Your task to perform on an android device: add a label to a message in the gmail app Image 0: 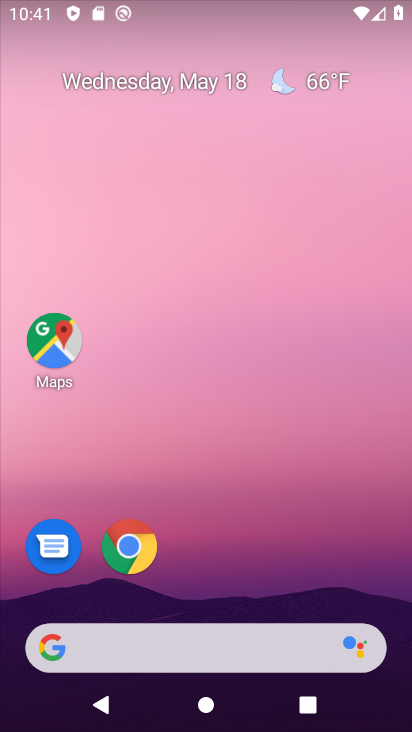
Step 0: drag from (247, 724) to (245, 203)
Your task to perform on an android device: add a label to a message in the gmail app Image 1: 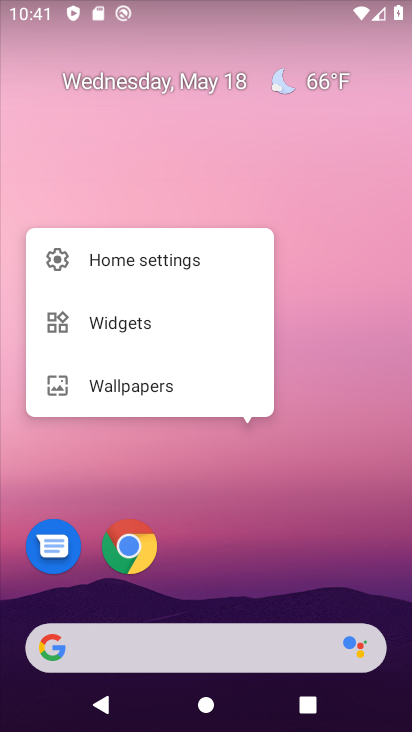
Step 1: click (201, 462)
Your task to perform on an android device: add a label to a message in the gmail app Image 2: 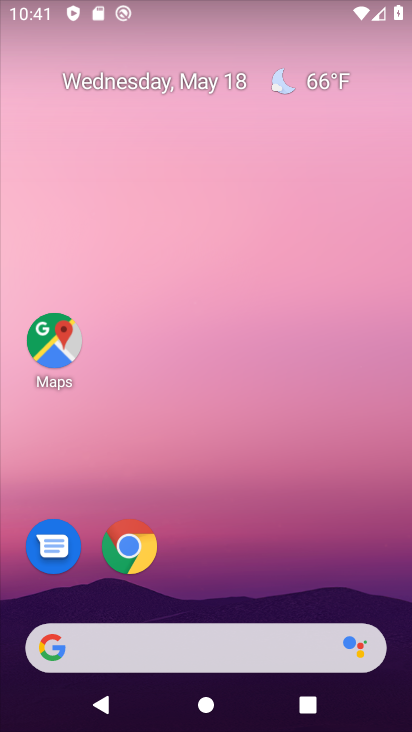
Step 2: drag from (226, 720) to (281, 99)
Your task to perform on an android device: add a label to a message in the gmail app Image 3: 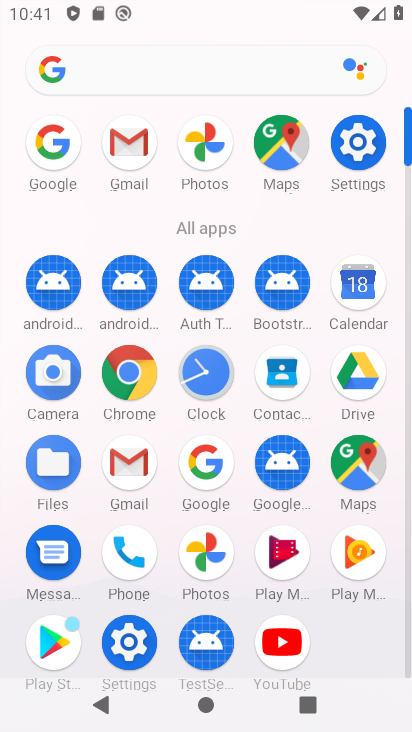
Step 3: click (129, 463)
Your task to perform on an android device: add a label to a message in the gmail app Image 4: 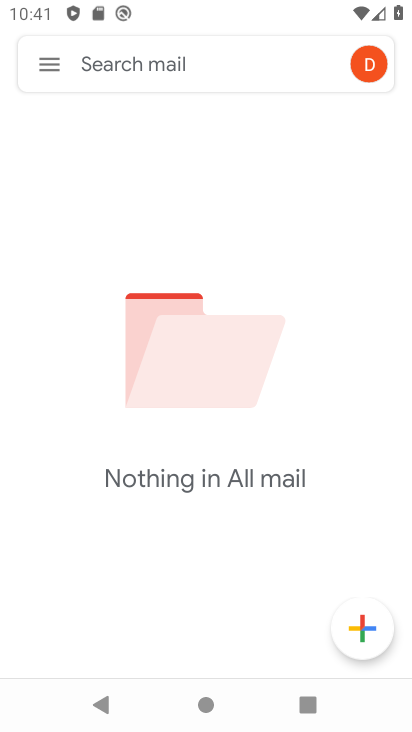
Step 4: click (49, 65)
Your task to perform on an android device: add a label to a message in the gmail app Image 5: 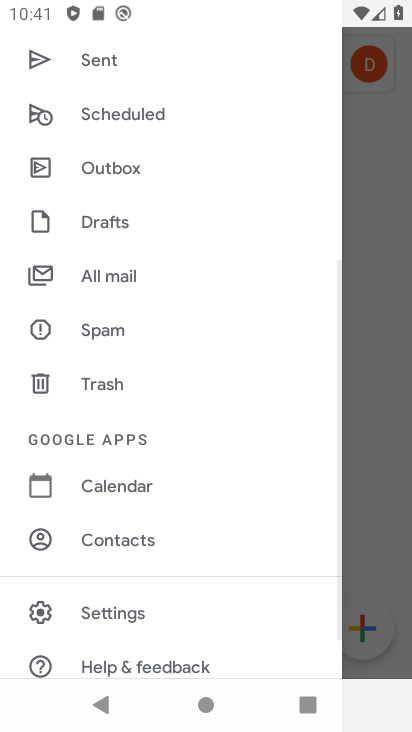
Step 5: drag from (185, 131) to (195, 609)
Your task to perform on an android device: add a label to a message in the gmail app Image 6: 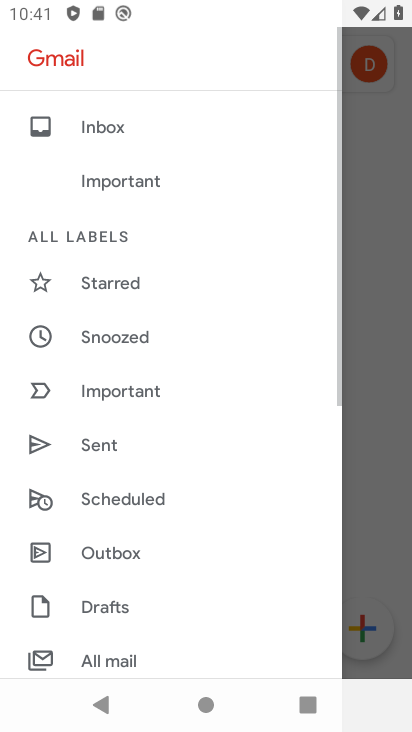
Step 6: click (102, 129)
Your task to perform on an android device: add a label to a message in the gmail app Image 7: 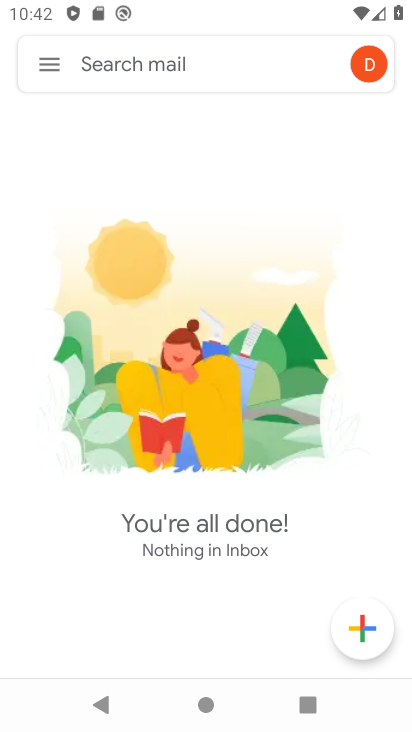
Step 7: task complete